Your task to perform on an android device: turn notification dots on Image 0: 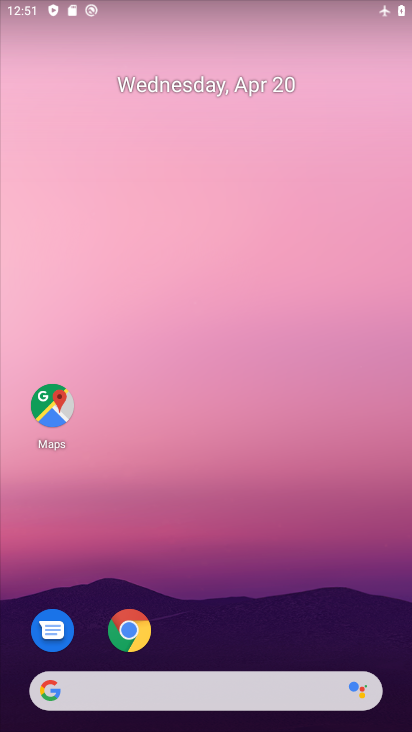
Step 0: press home button
Your task to perform on an android device: turn notification dots on Image 1: 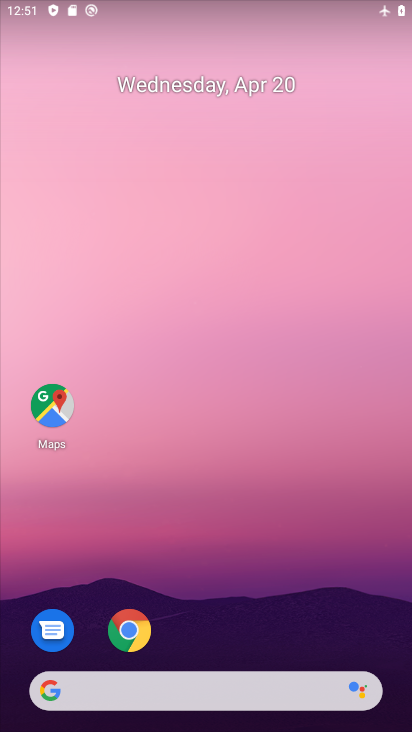
Step 1: drag from (247, 495) to (232, 83)
Your task to perform on an android device: turn notification dots on Image 2: 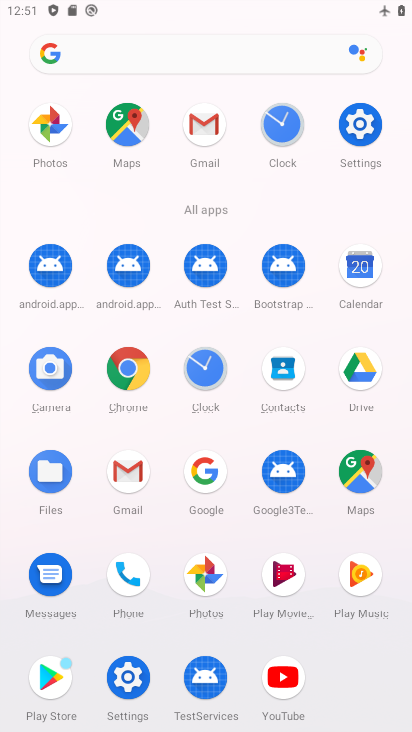
Step 2: click (351, 121)
Your task to perform on an android device: turn notification dots on Image 3: 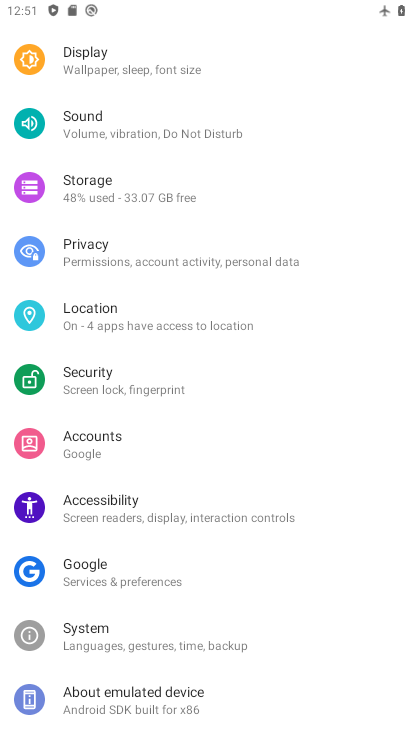
Step 3: drag from (103, 186) to (114, 655)
Your task to perform on an android device: turn notification dots on Image 4: 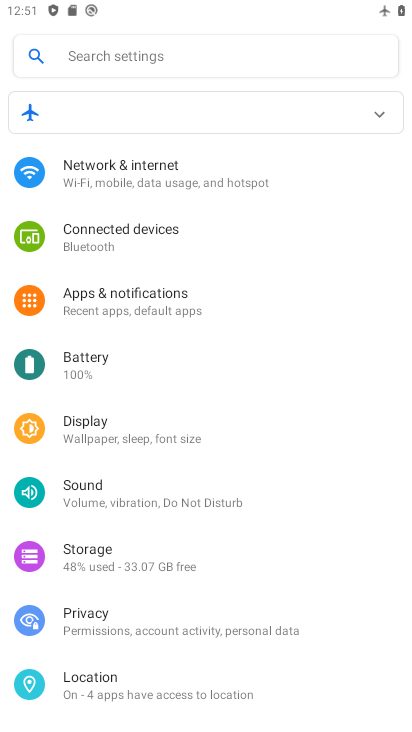
Step 4: click (134, 300)
Your task to perform on an android device: turn notification dots on Image 5: 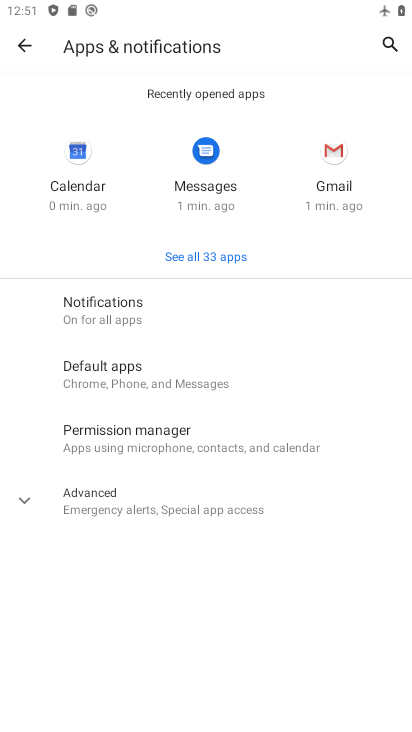
Step 5: click (125, 316)
Your task to perform on an android device: turn notification dots on Image 6: 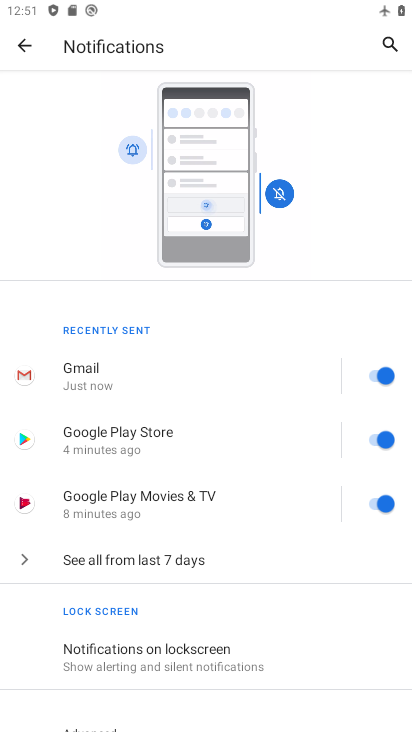
Step 6: drag from (180, 658) to (193, 439)
Your task to perform on an android device: turn notification dots on Image 7: 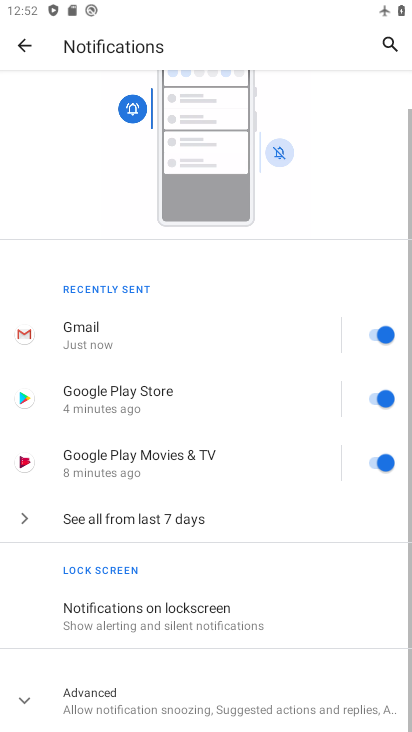
Step 7: click (227, 710)
Your task to perform on an android device: turn notification dots on Image 8: 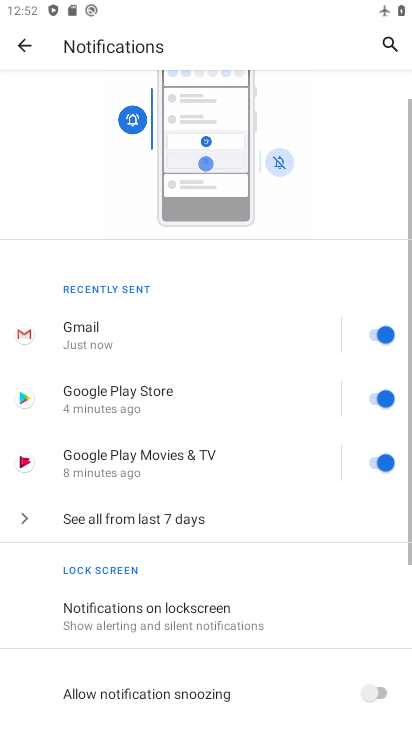
Step 8: task complete